Your task to perform on an android device: check out phone information Image 0: 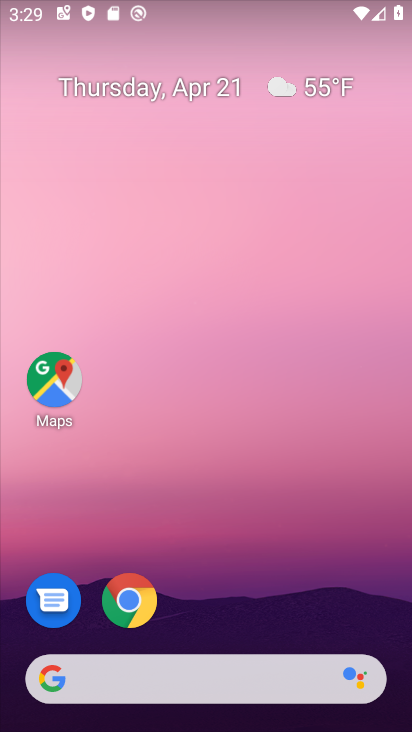
Step 0: drag from (182, 667) to (349, 75)
Your task to perform on an android device: check out phone information Image 1: 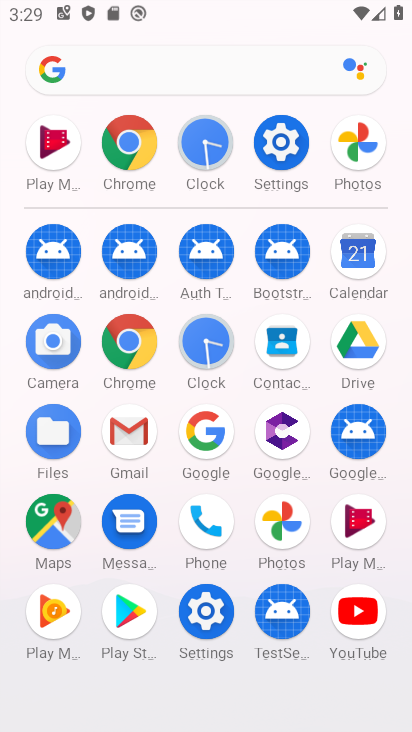
Step 1: click (280, 139)
Your task to perform on an android device: check out phone information Image 2: 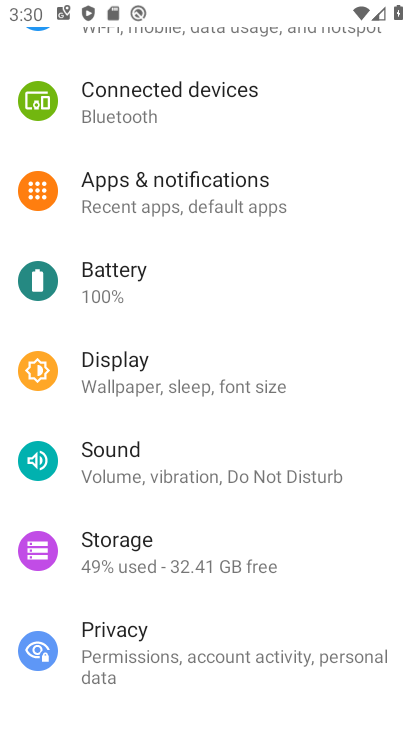
Step 2: drag from (209, 637) to (371, 50)
Your task to perform on an android device: check out phone information Image 3: 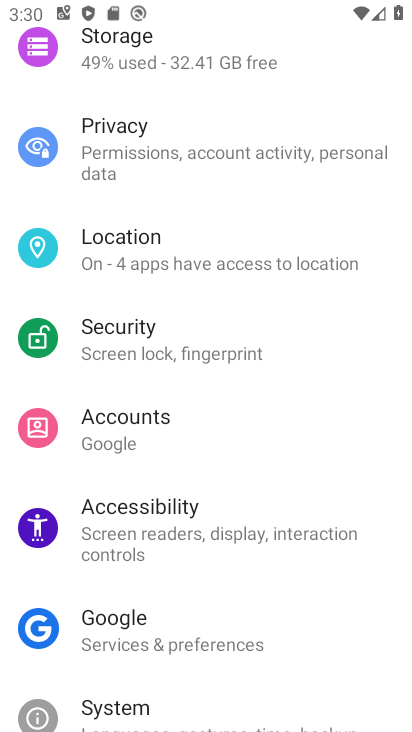
Step 3: drag from (210, 632) to (326, 116)
Your task to perform on an android device: check out phone information Image 4: 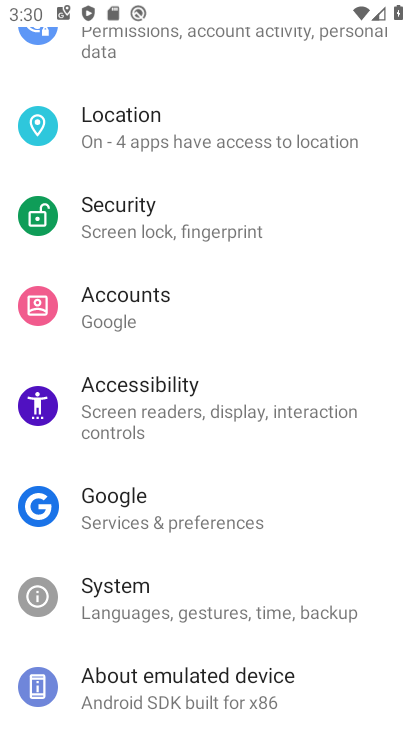
Step 4: click (169, 693)
Your task to perform on an android device: check out phone information Image 5: 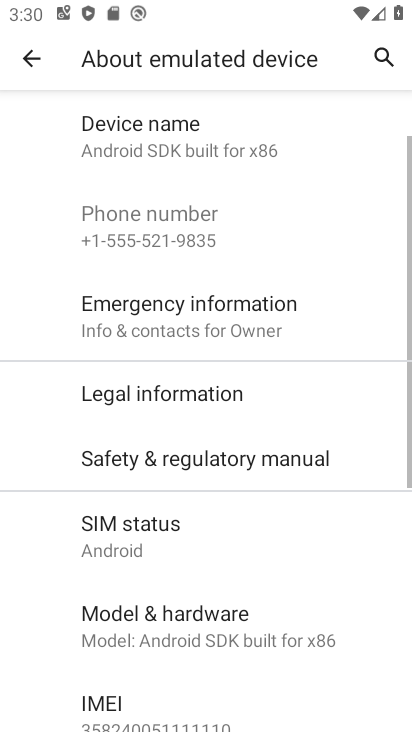
Step 5: task complete